Your task to perform on an android device: Show me popular videos on Youtube Image 0: 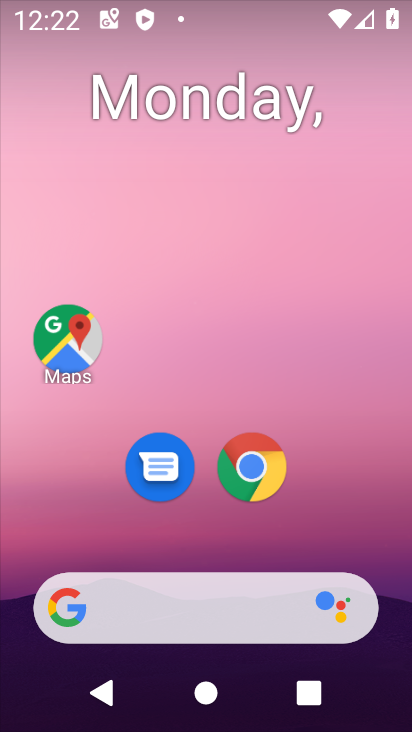
Step 0: drag from (404, 615) to (391, 132)
Your task to perform on an android device: Show me popular videos on Youtube Image 1: 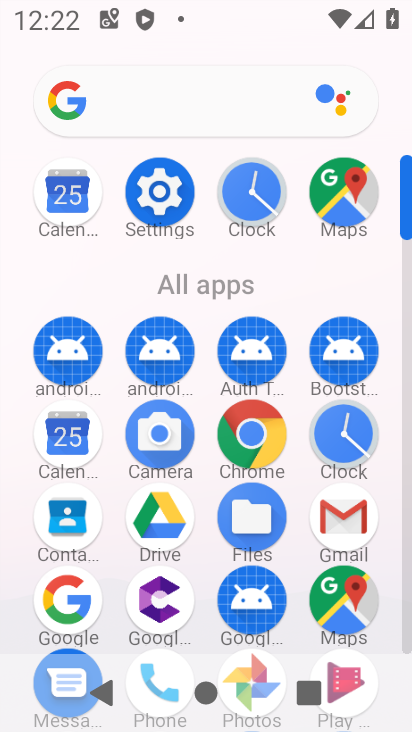
Step 1: click (404, 640)
Your task to perform on an android device: Show me popular videos on Youtube Image 2: 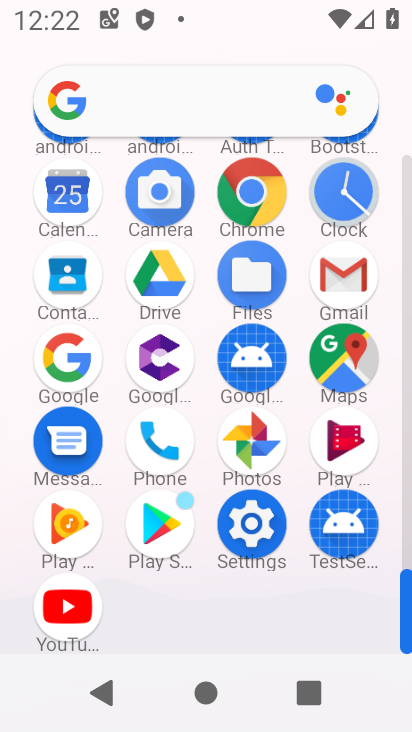
Step 2: click (60, 603)
Your task to perform on an android device: Show me popular videos on Youtube Image 3: 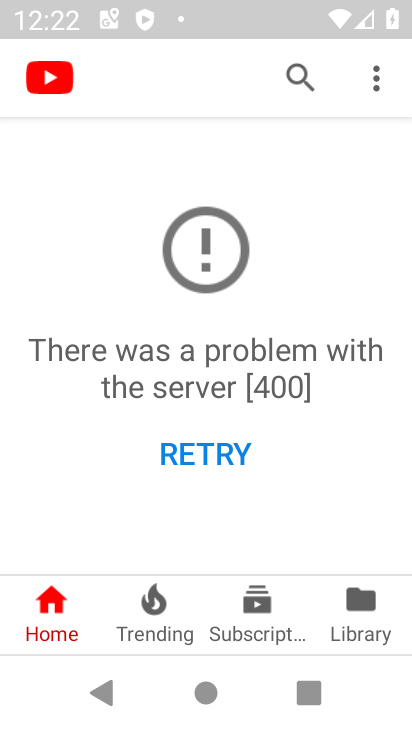
Step 3: click (152, 603)
Your task to perform on an android device: Show me popular videos on Youtube Image 4: 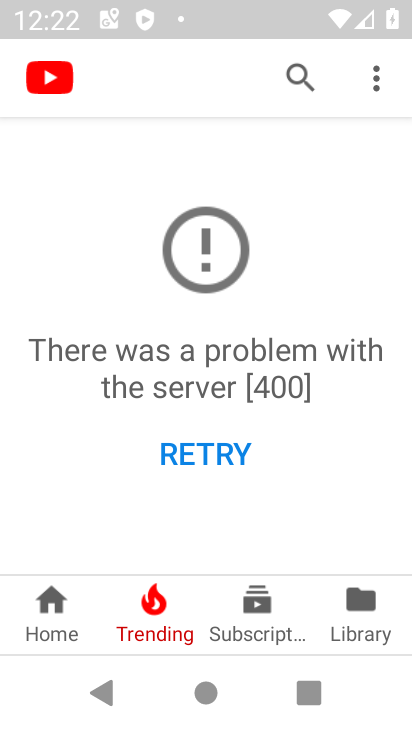
Step 4: task complete